Your task to perform on an android device: see creations saved in the google photos Image 0: 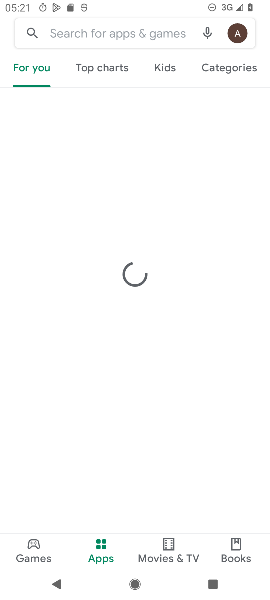
Step 0: press home button
Your task to perform on an android device: see creations saved in the google photos Image 1: 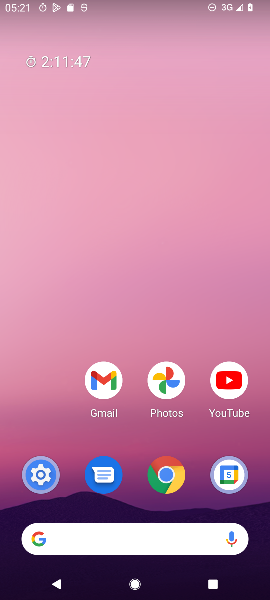
Step 1: drag from (50, 409) to (42, 186)
Your task to perform on an android device: see creations saved in the google photos Image 2: 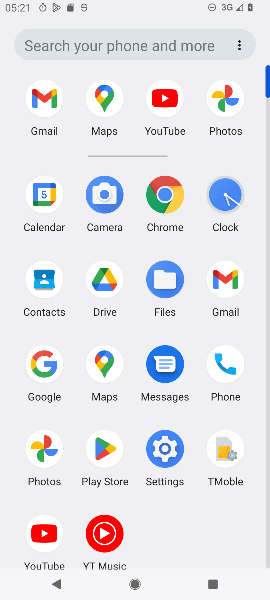
Step 2: click (42, 451)
Your task to perform on an android device: see creations saved in the google photos Image 3: 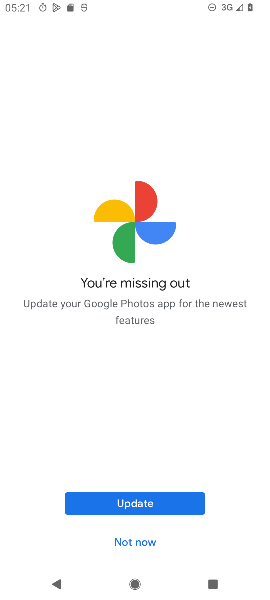
Step 3: click (142, 539)
Your task to perform on an android device: see creations saved in the google photos Image 4: 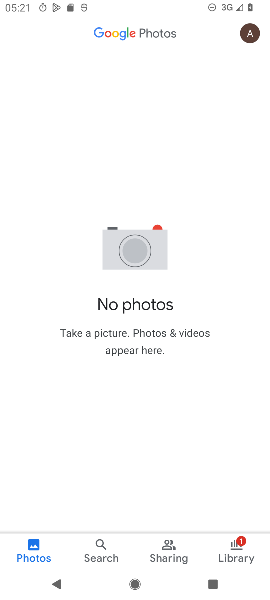
Step 4: click (103, 547)
Your task to perform on an android device: see creations saved in the google photos Image 5: 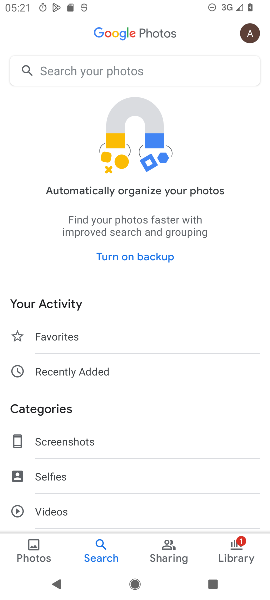
Step 5: drag from (190, 479) to (182, 372)
Your task to perform on an android device: see creations saved in the google photos Image 6: 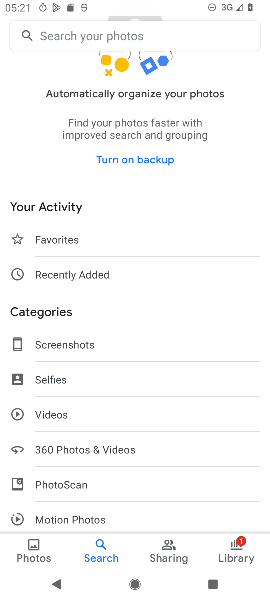
Step 6: drag from (168, 474) to (168, 360)
Your task to perform on an android device: see creations saved in the google photos Image 7: 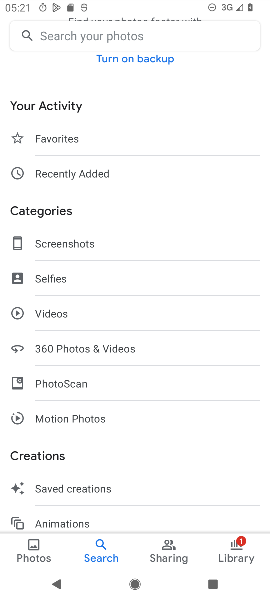
Step 7: click (90, 495)
Your task to perform on an android device: see creations saved in the google photos Image 8: 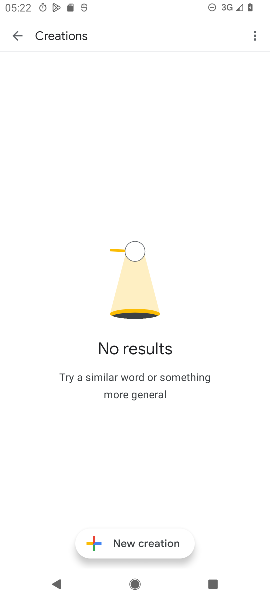
Step 8: task complete